Your task to perform on an android device: clear history in the chrome app Image 0: 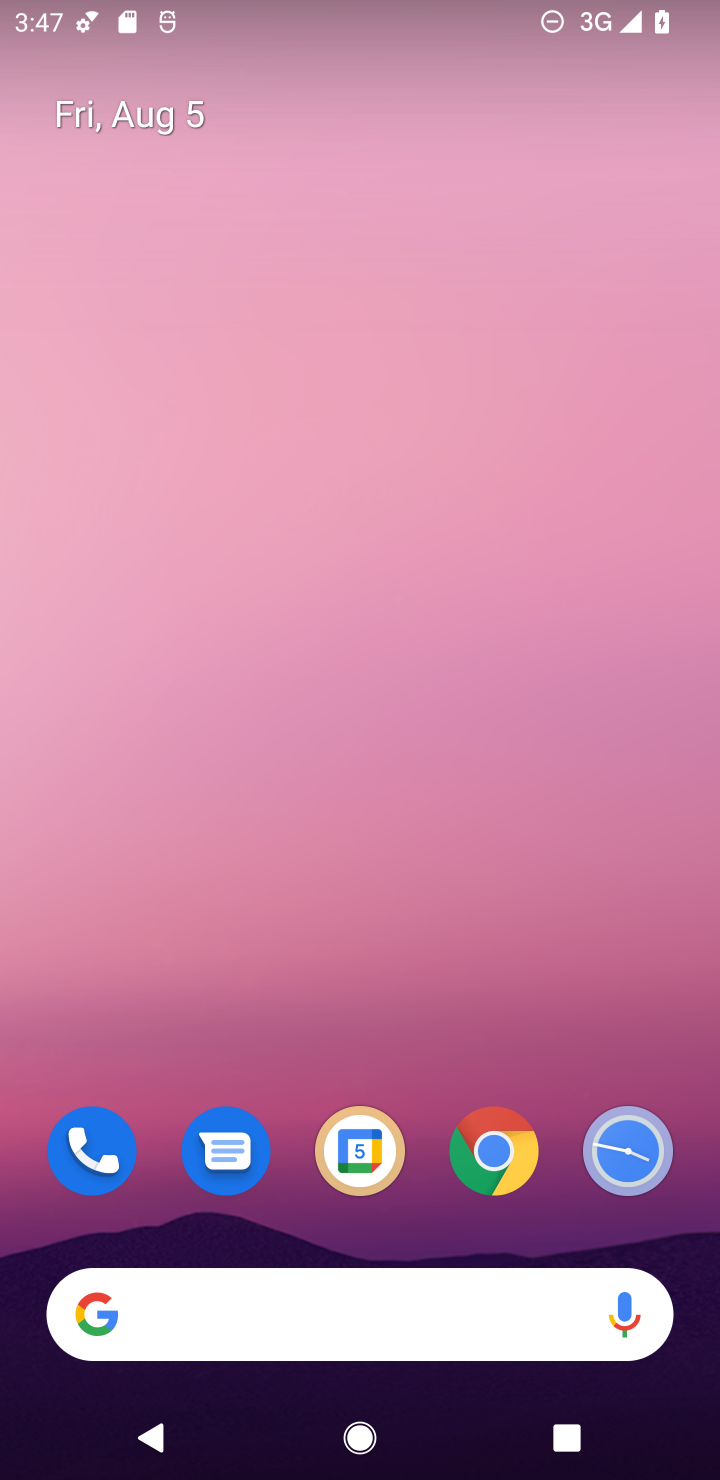
Step 0: click (502, 1155)
Your task to perform on an android device: clear history in the chrome app Image 1: 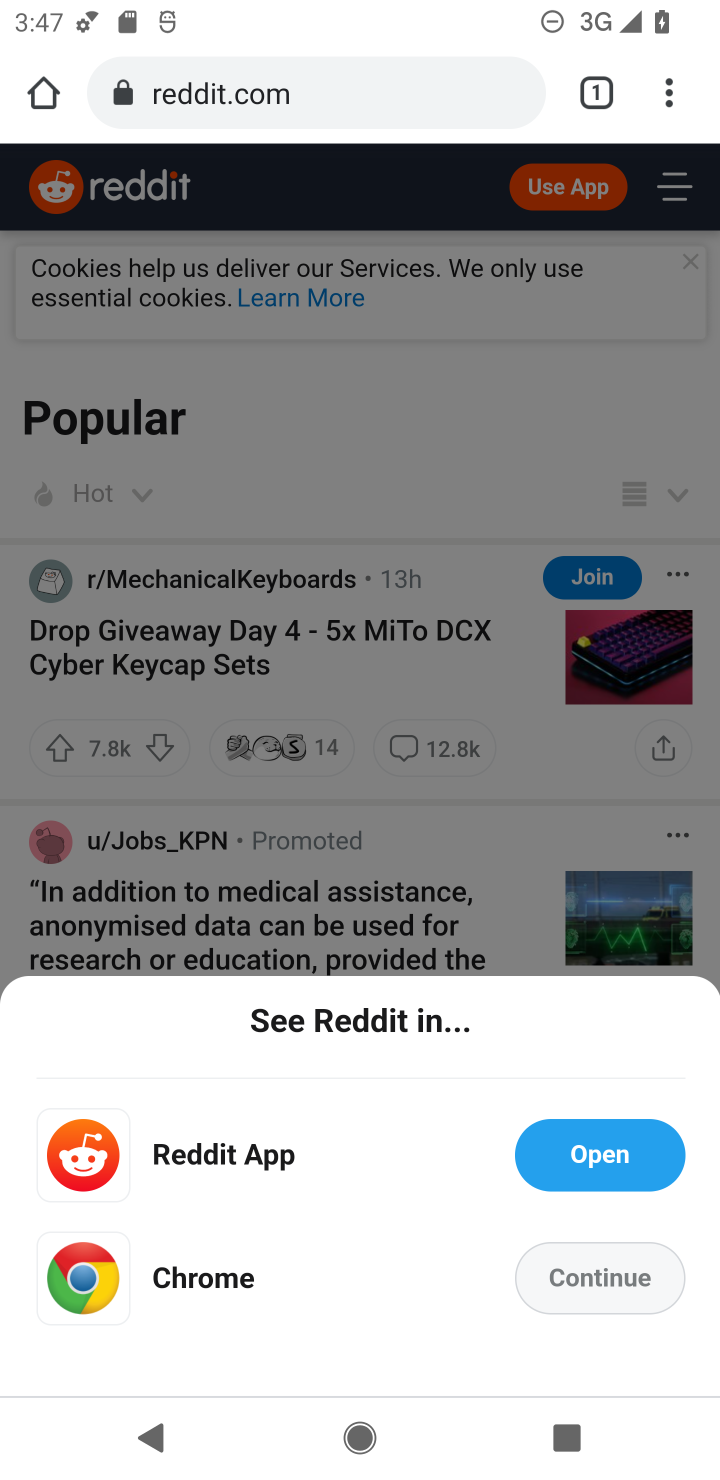
Step 1: click (659, 95)
Your task to perform on an android device: clear history in the chrome app Image 2: 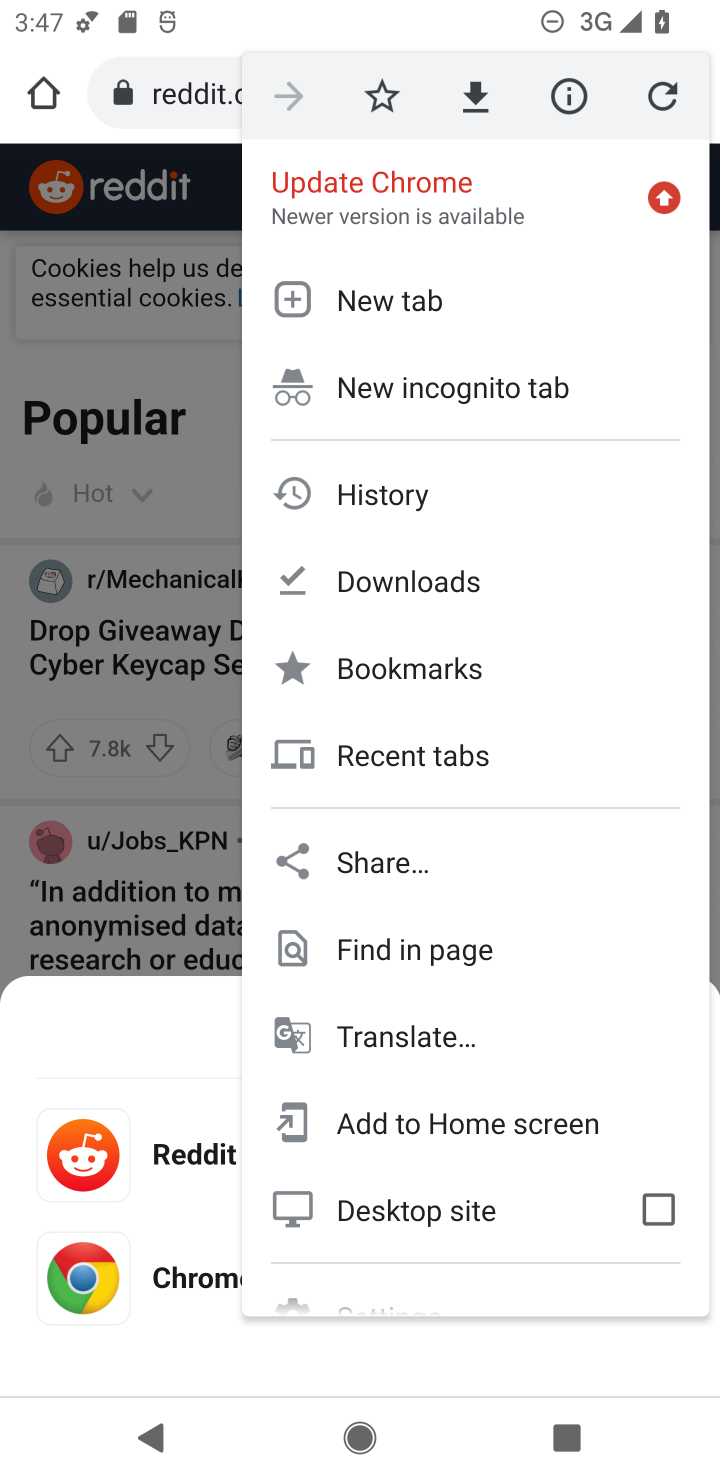
Step 2: click (392, 493)
Your task to perform on an android device: clear history in the chrome app Image 3: 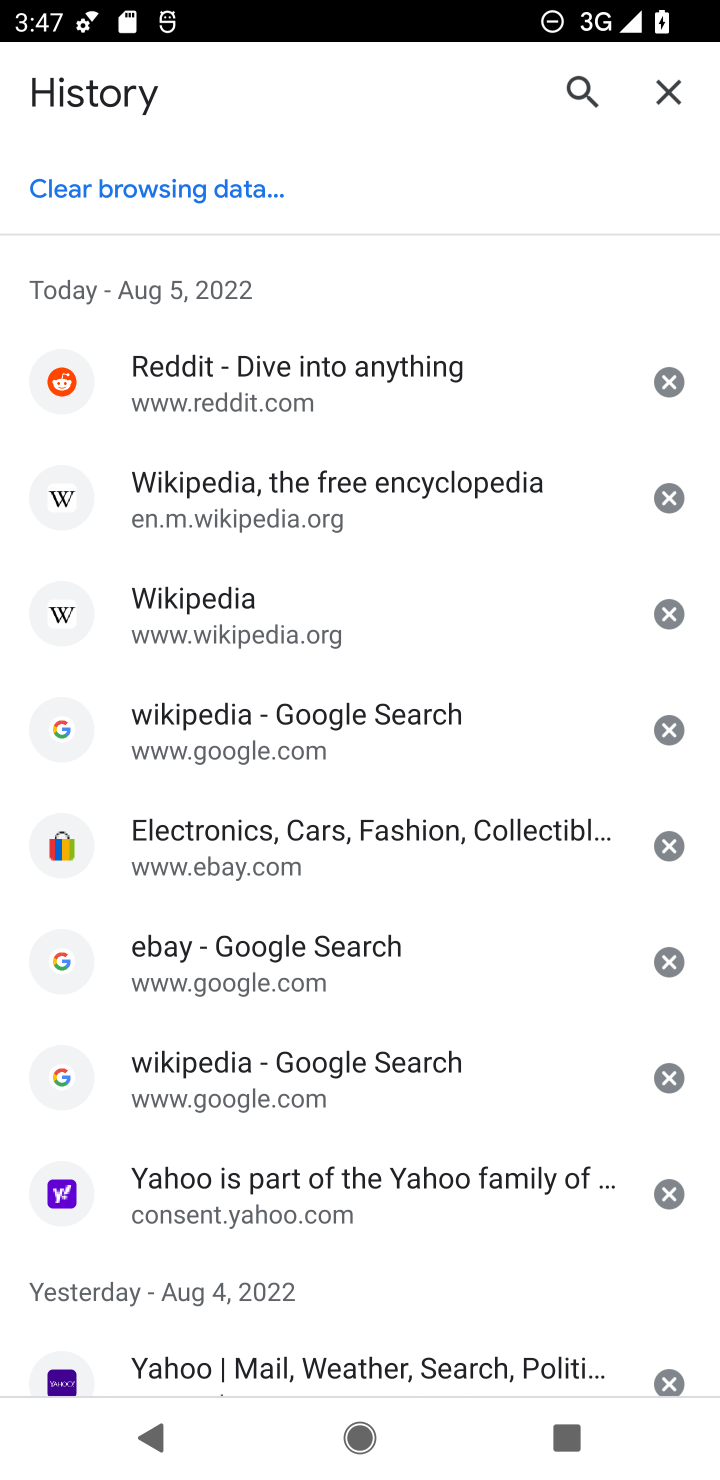
Step 3: click (234, 186)
Your task to perform on an android device: clear history in the chrome app Image 4: 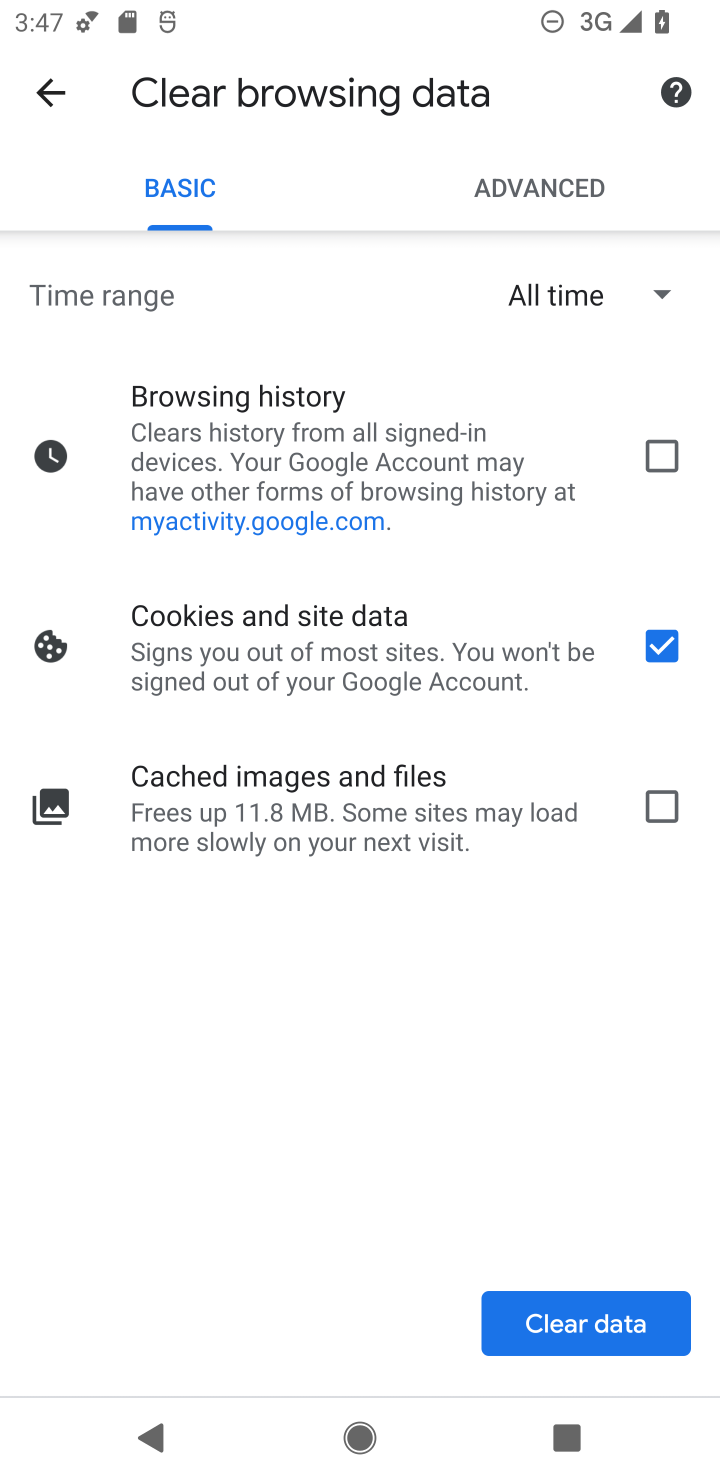
Step 4: click (656, 456)
Your task to perform on an android device: clear history in the chrome app Image 5: 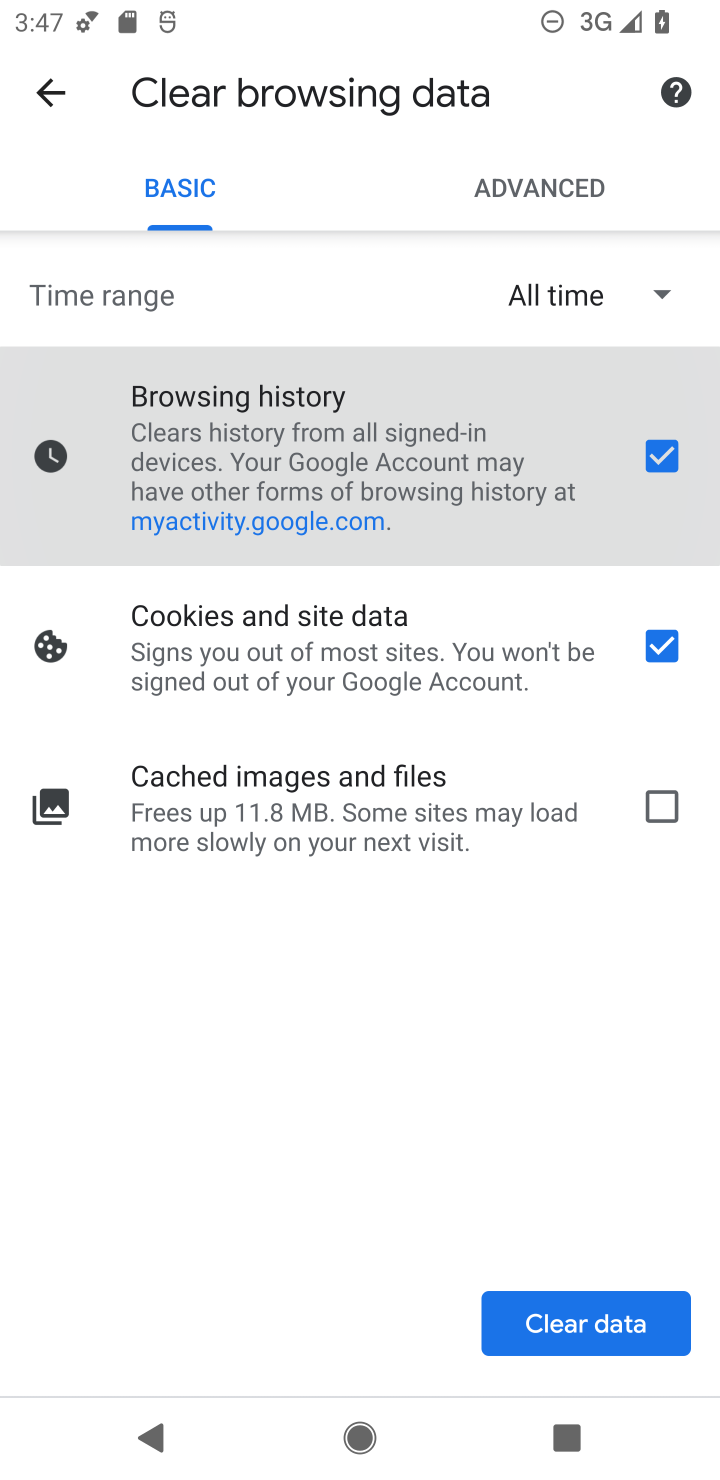
Step 5: click (659, 816)
Your task to perform on an android device: clear history in the chrome app Image 6: 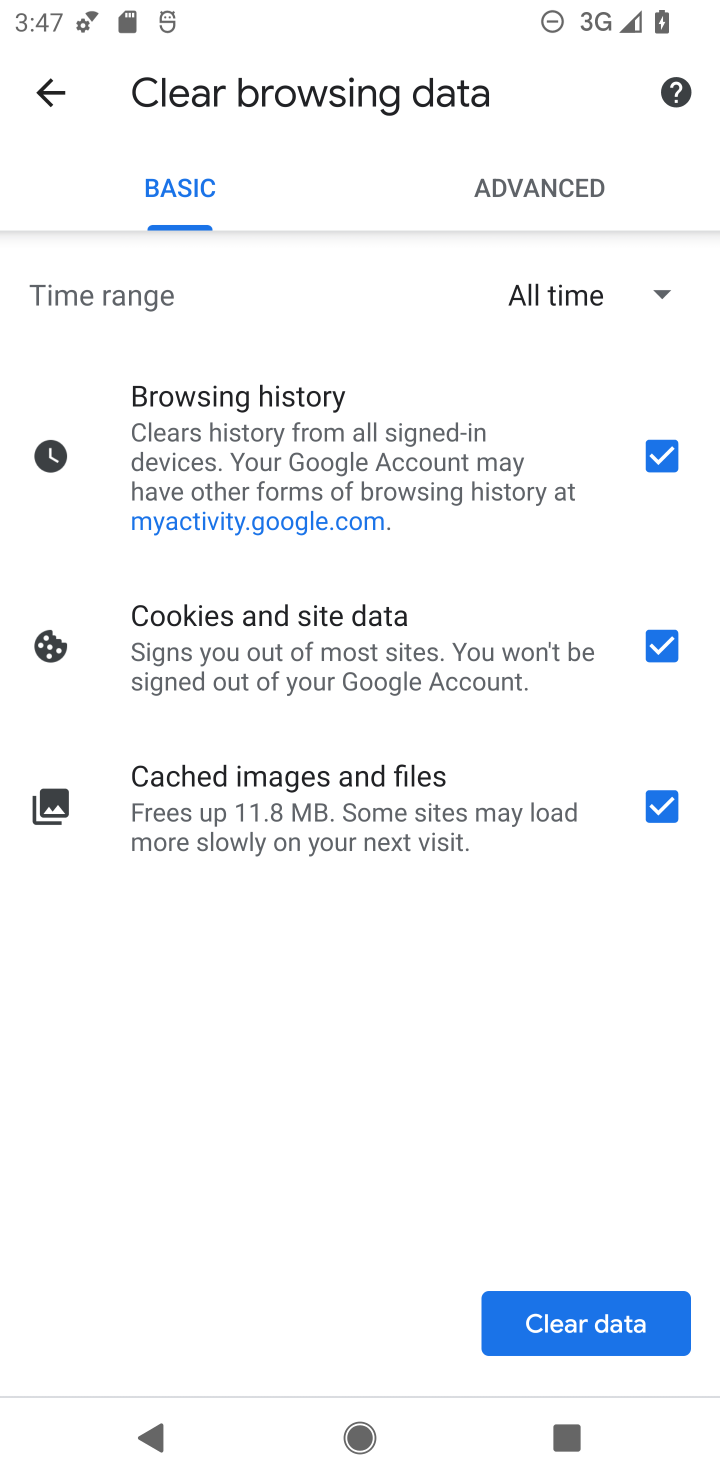
Step 6: click (620, 1324)
Your task to perform on an android device: clear history in the chrome app Image 7: 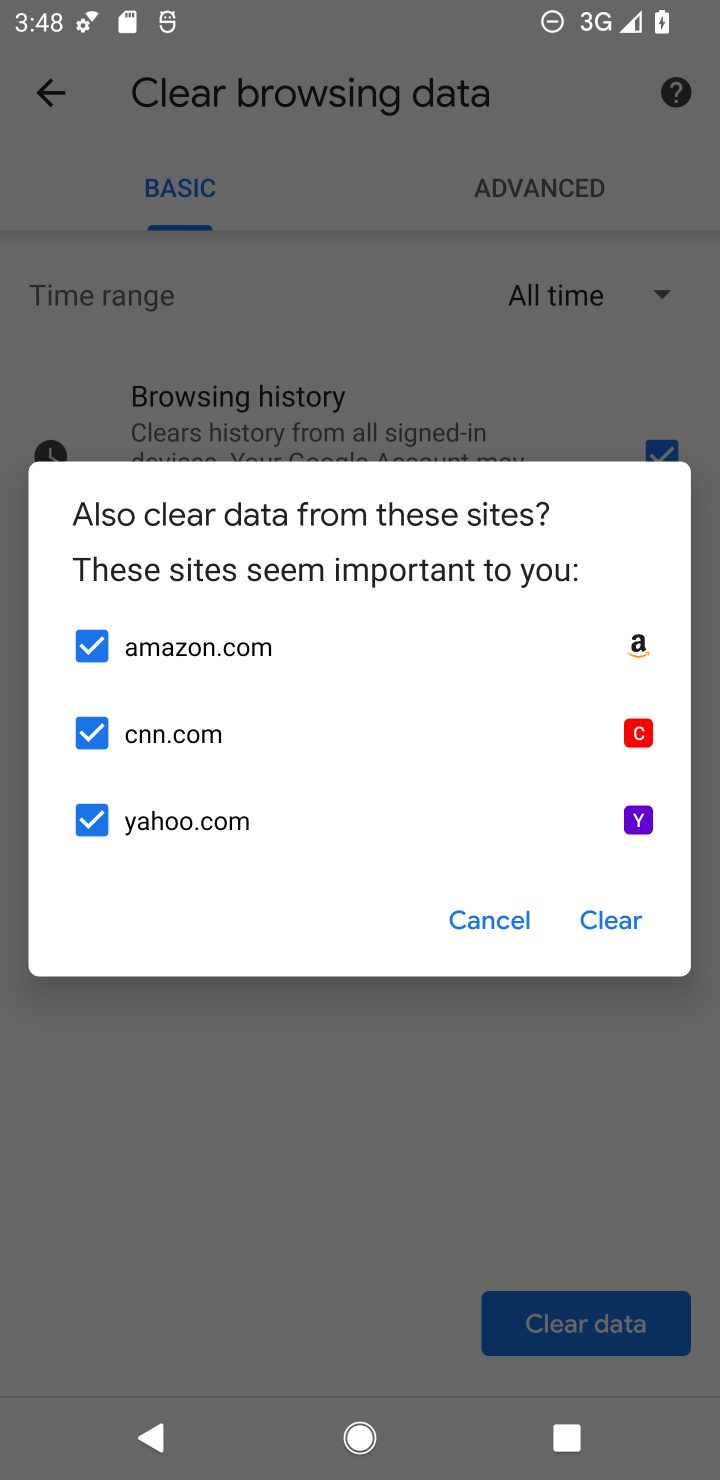
Step 7: click (596, 912)
Your task to perform on an android device: clear history in the chrome app Image 8: 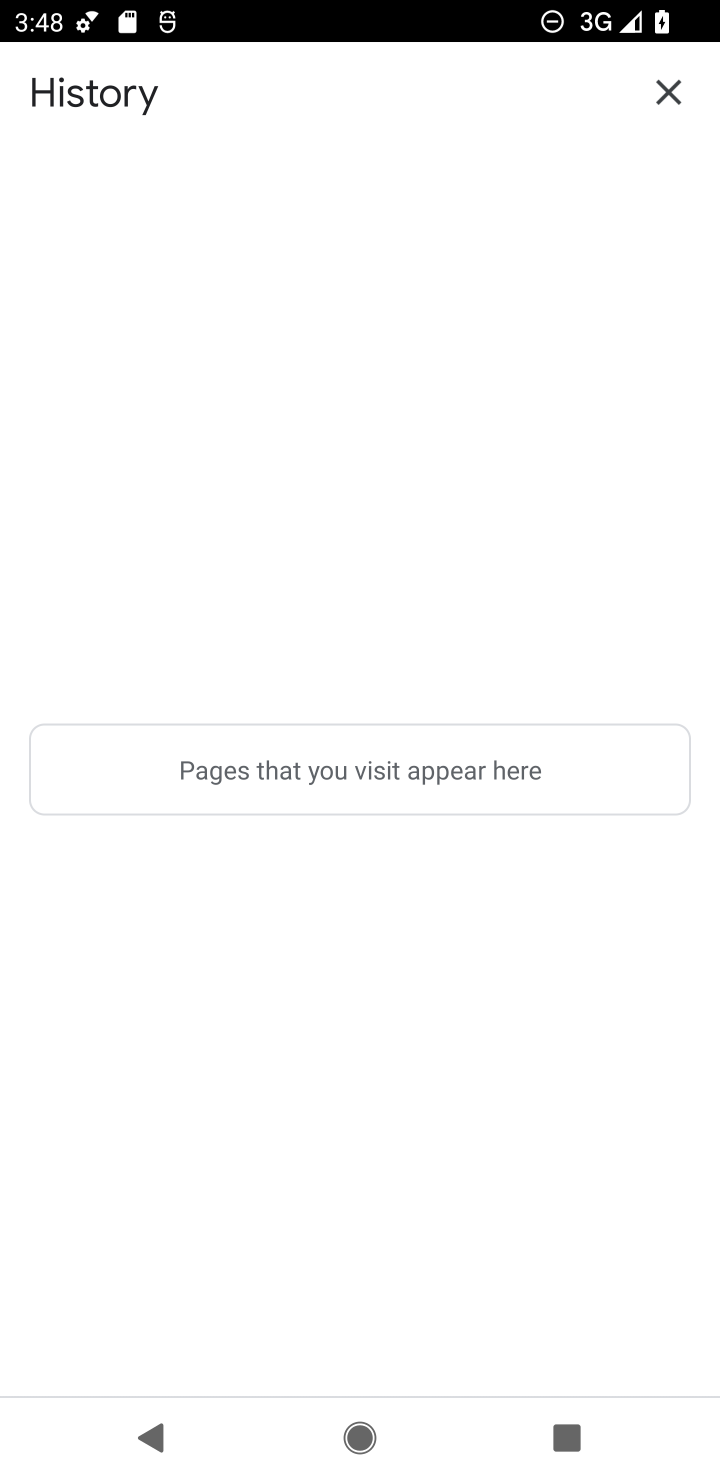
Step 8: task complete